Your task to perform on an android device: toggle airplane mode Image 0: 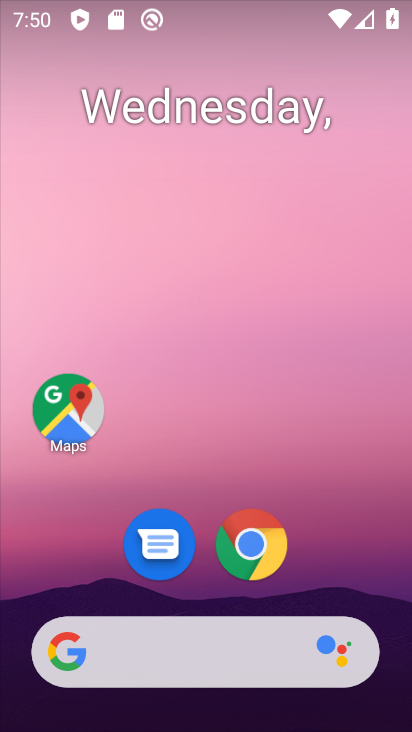
Step 0: drag from (223, 660) to (226, 136)
Your task to perform on an android device: toggle airplane mode Image 1: 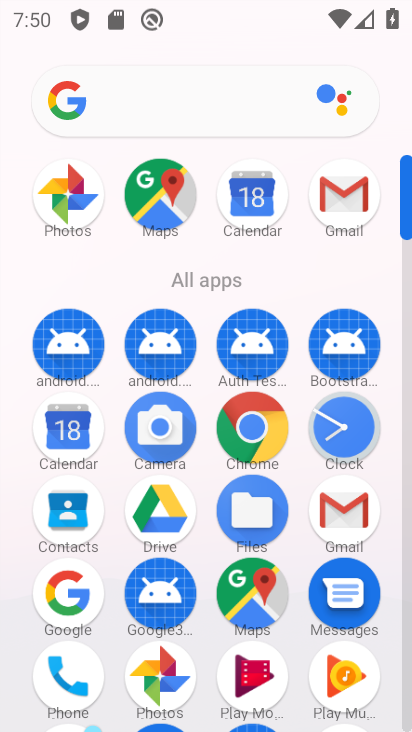
Step 1: drag from (125, 501) to (125, 307)
Your task to perform on an android device: toggle airplane mode Image 2: 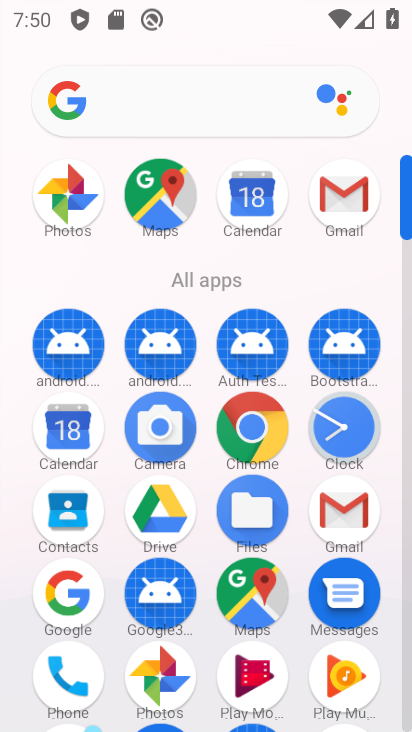
Step 2: drag from (205, 686) to (207, 170)
Your task to perform on an android device: toggle airplane mode Image 3: 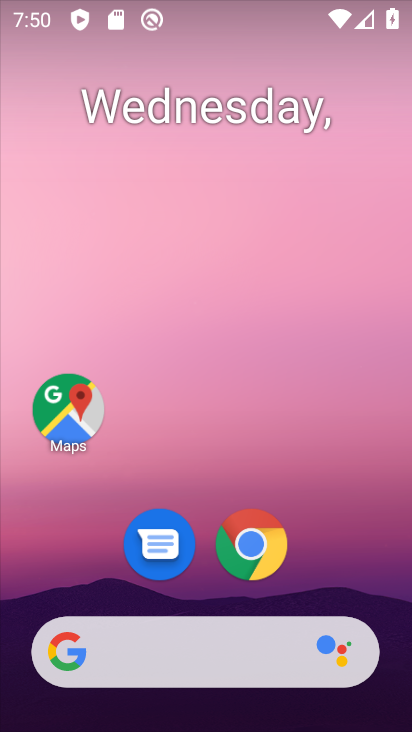
Step 3: drag from (233, 715) to (235, 44)
Your task to perform on an android device: toggle airplane mode Image 4: 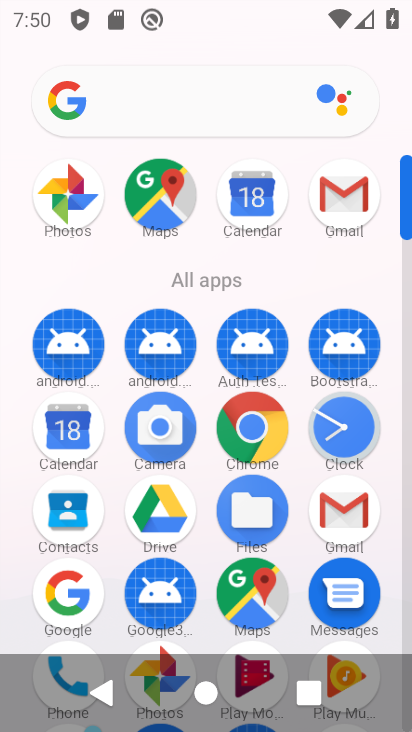
Step 4: drag from (199, 595) to (219, 230)
Your task to perform on an android device: toggle airplane mode Image 5: 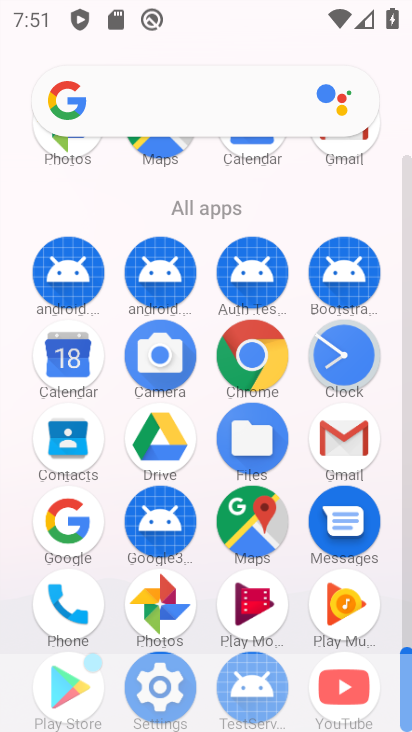
Step 5: click (163, 685)
Your task to perform on an android device: toggle airplane mode Image 6: 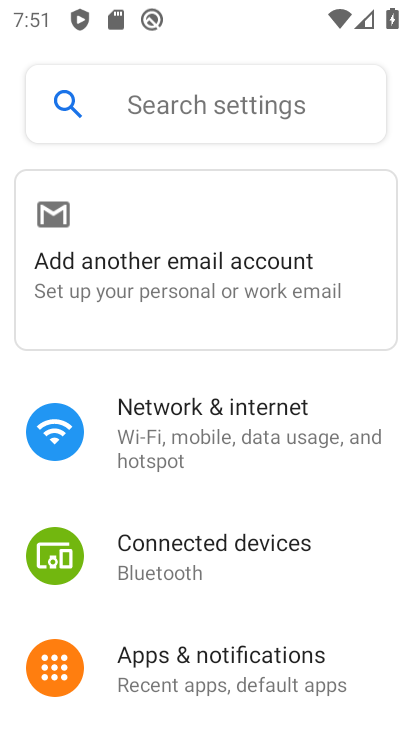
Step 6: click (157, 417)
Your task to perform on an android device: toggle airplane mode Image 7: 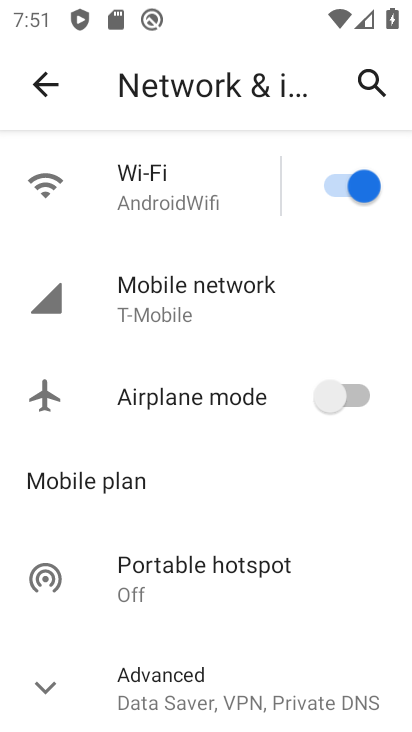
Step 7: click (355, 395)
Your task to perform on an android device: toggle airplane mode Image 8: 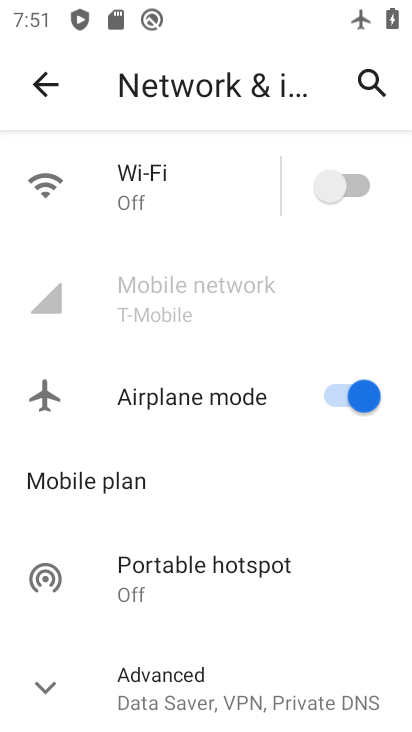
Step 8: task complete